Your task to perform on an android device: Turn on the flashlight Image 0: 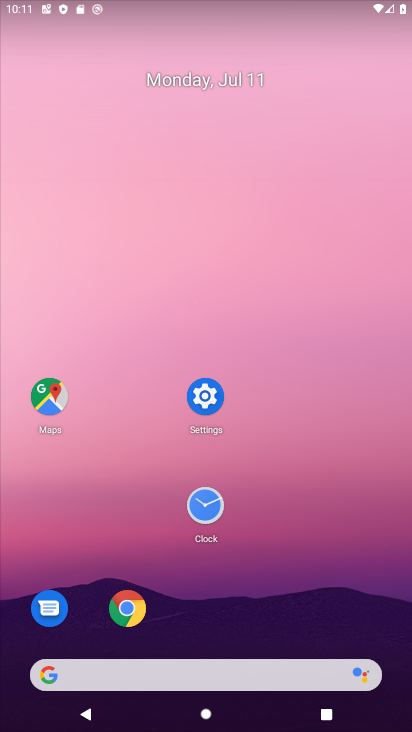
Step 0: drag from (386, 638) to (353, 190)
Your task to perform on an android device: Turn on the flashlight Image 1: 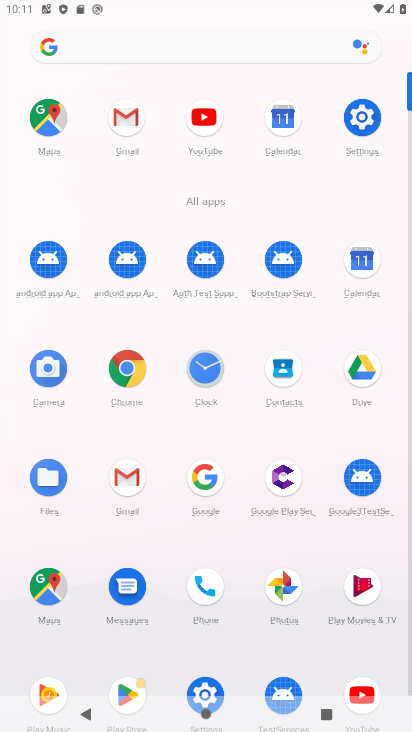
Step 1: click (353, 120)
Your task to perform on an android device: Turn on the flashlight Image 2: 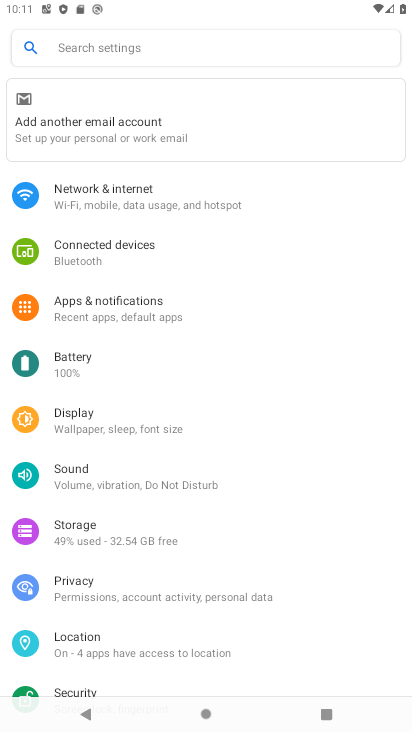
Step 2: click (79, 418)
Your task to perform on an android device: Turn on the flashlight Image 3: 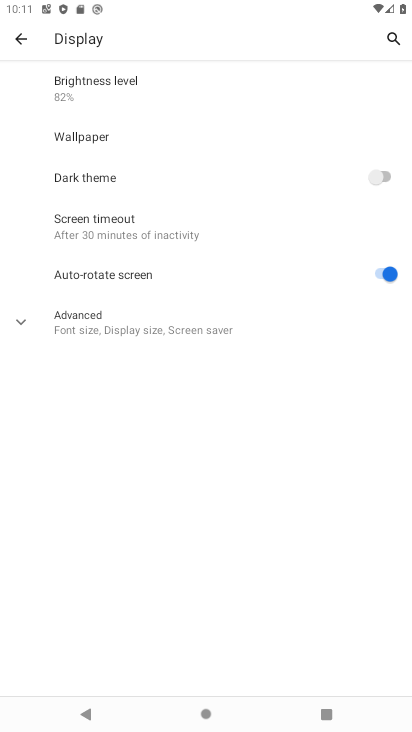
Step 3: task complete